Your task to perform on an android device: Open calendar and show me the first week of next month Image 0: 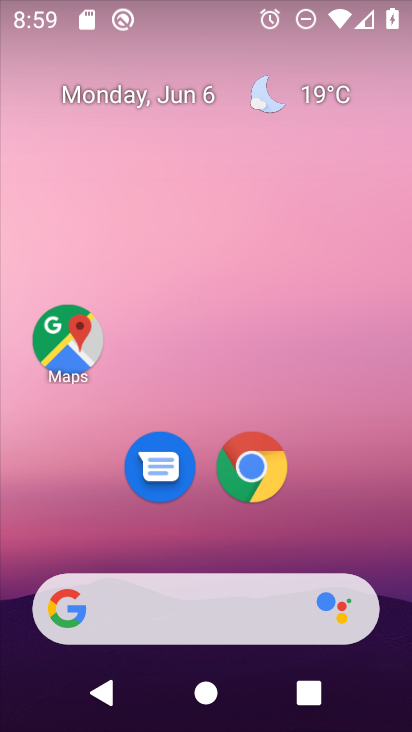
Step 0: drag from (380, 490) to (361, 107)
Your task to perform on an android device: Open calendar and show me the first week of next month Image 1: 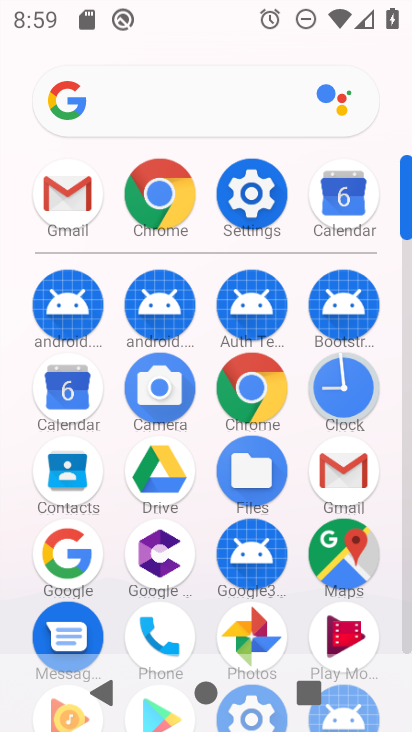
Step 1: click (69, 387)
Your task to perform on an android device: Open calendar and show me the first week of next month Image 2: 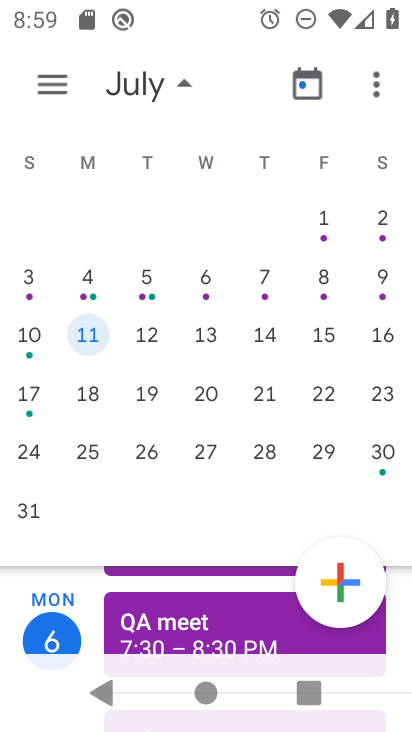
Step 2: click (84, 280)
Your task to perform on an android device: Open calendar and show me the first week of next month Image 3: 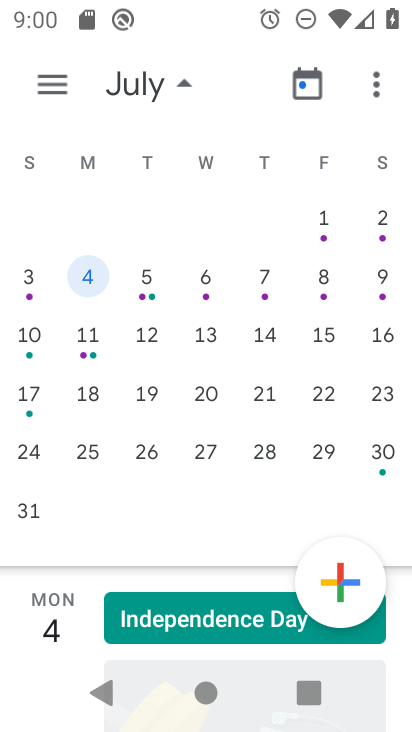
Step 3: task complete